Your task to perform on an android device: turn off translation in the chrome app Image 0: 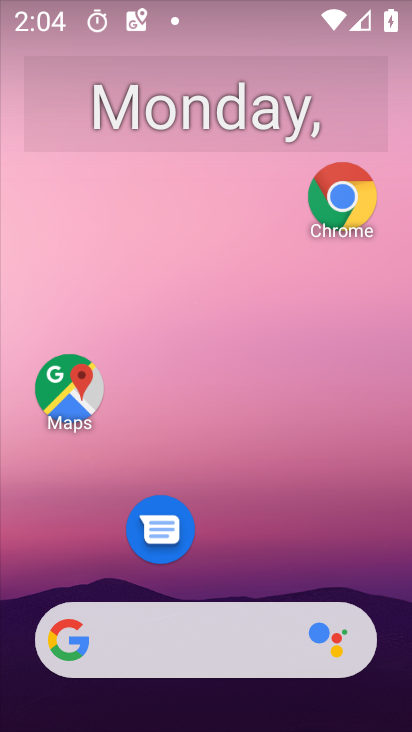
Step 0: drag from (191, 603) to (199, 44)
Your task to perform on an android device: turn off translation in the chrome app Image 1: 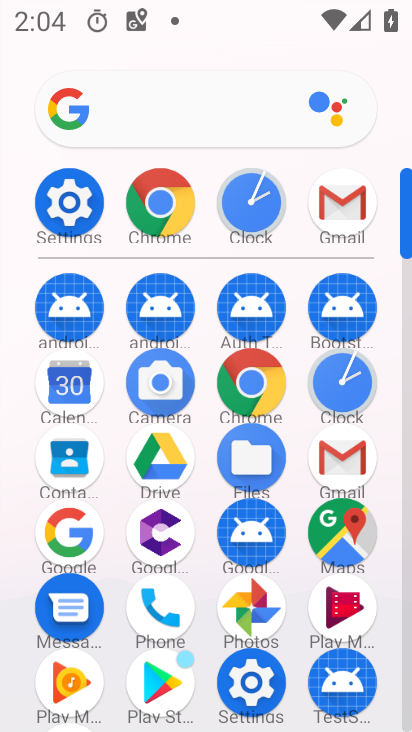
Step 1: click (272, 387)
Your task to perform on an android device: turn off translation in the chrome app Image 2: 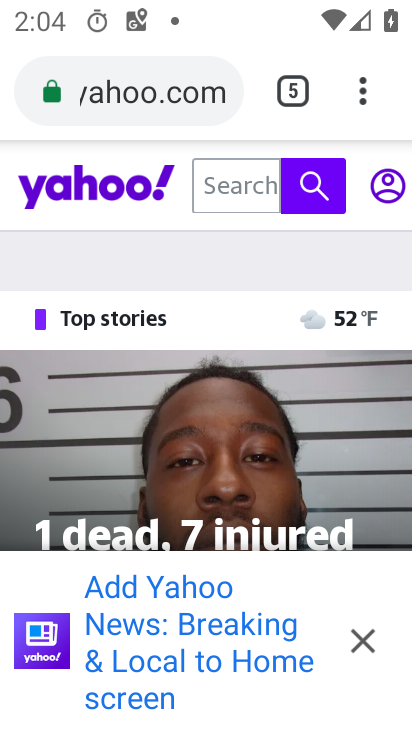
Step 2: click (351, 79)
Your task to perform on an android device: turn off translation in the chrome app Image 3: 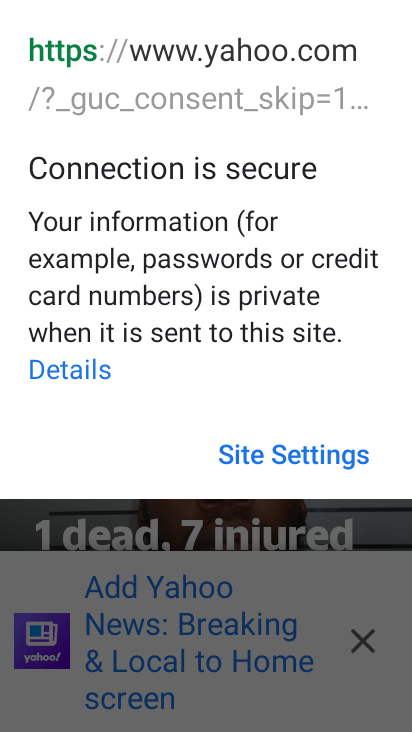
Step 3: click (296, 522)
Your task to perform on an android device: turn off translation in the chrome app Image 4: 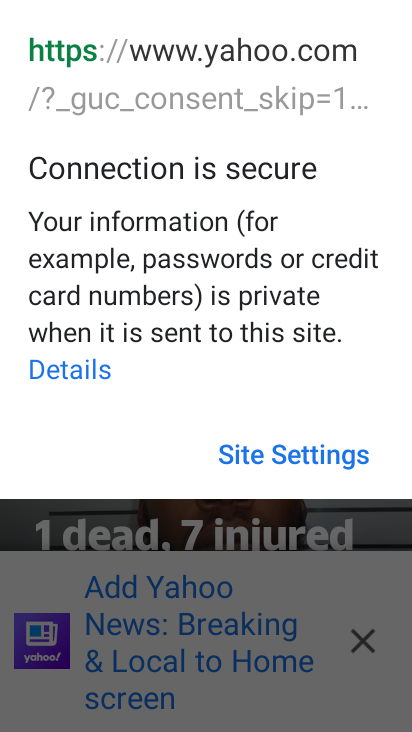
Step 4: click (360, 566)
Your task to perform on an android device: turn off translation in the chrome app Image 5: 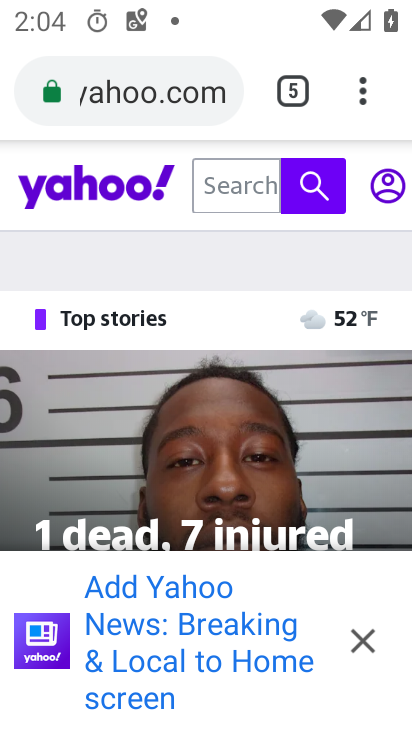
Step 5: drag from (359, 94) to (111, 576)
Your task to perform on an android device: turn off translation in the chrome app Image 6: 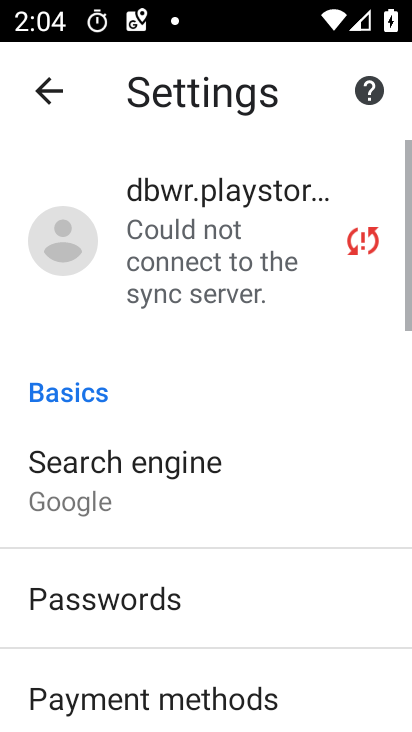
Step 6: drag from (111, 574) to (70, 210)
Your task to perform on an android device: turn off translation in the chrome app Image 7: 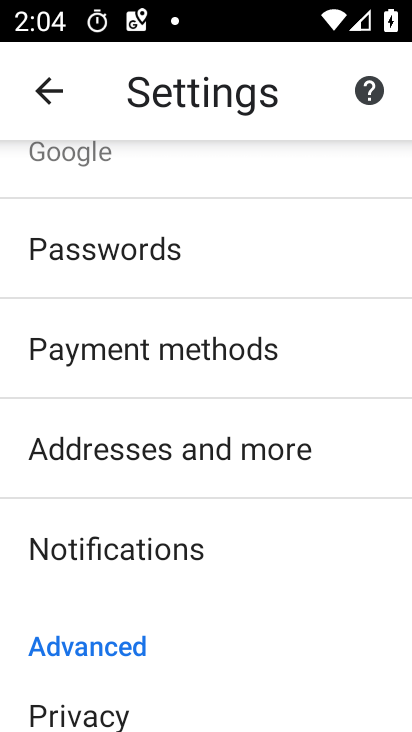
Step 7: drag from (165, 571) to (136, 82)
Your task to perform on an android device: turn off translation in the chrome app Image 8: 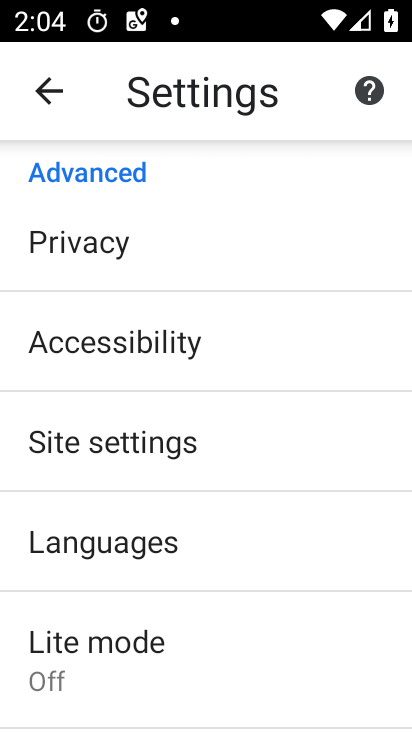
Step 8: click (155, 523)
Your task to perform on an android device: turn off translation in the chrome app Image 9: 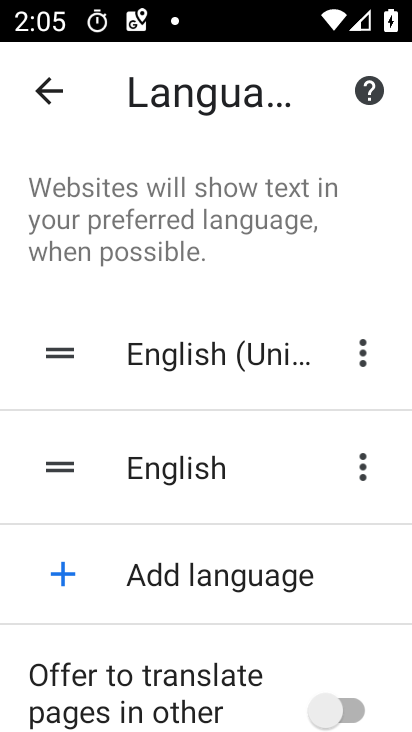
Step 9: task complete